Your task to perform on an android device: set default search engine in the chrome app Image 0: 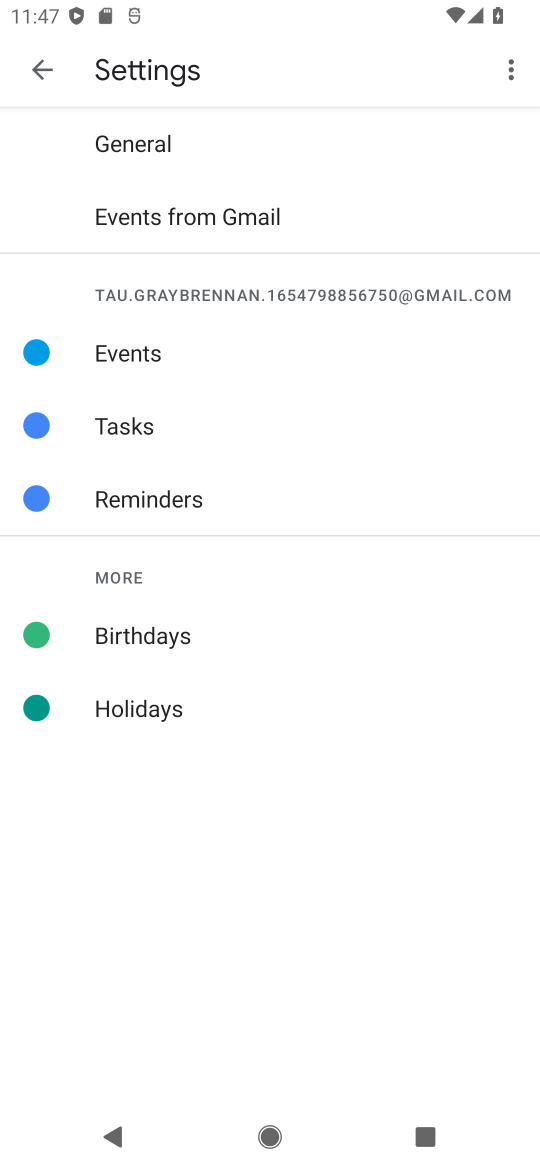
Step 0: press home button
Your task to perform on an android device: set default search engine in the chrome app Image 1: 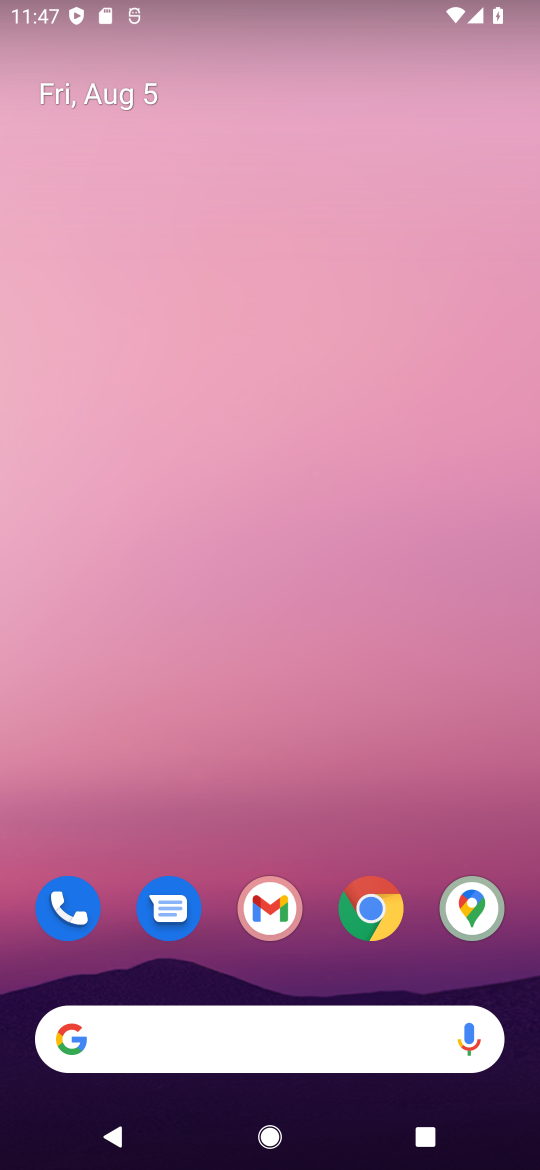
Step 1: drag from (404, 840) to (418, 11)
Your task to perform on an android device: set default search engine in the chrome app Image 2: 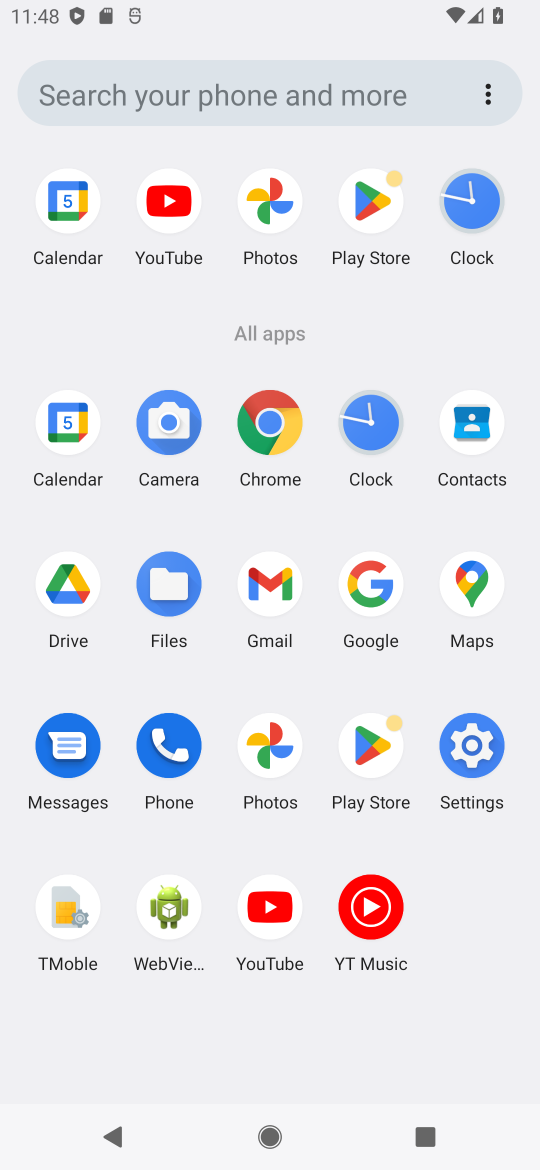
Step 2: click (266, 417)
Your task to perform on an android device: set default search engine in the chrome app Image 3: 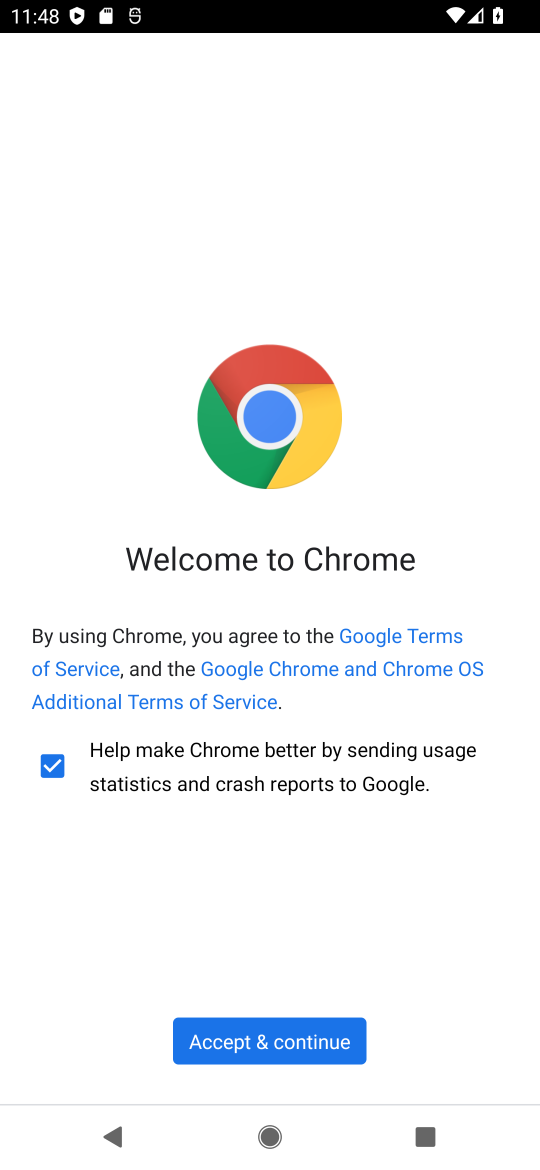
Step 3: click (295, 1055)
Your task to perform on an android device: set default search engine in the chrome app Image 4: 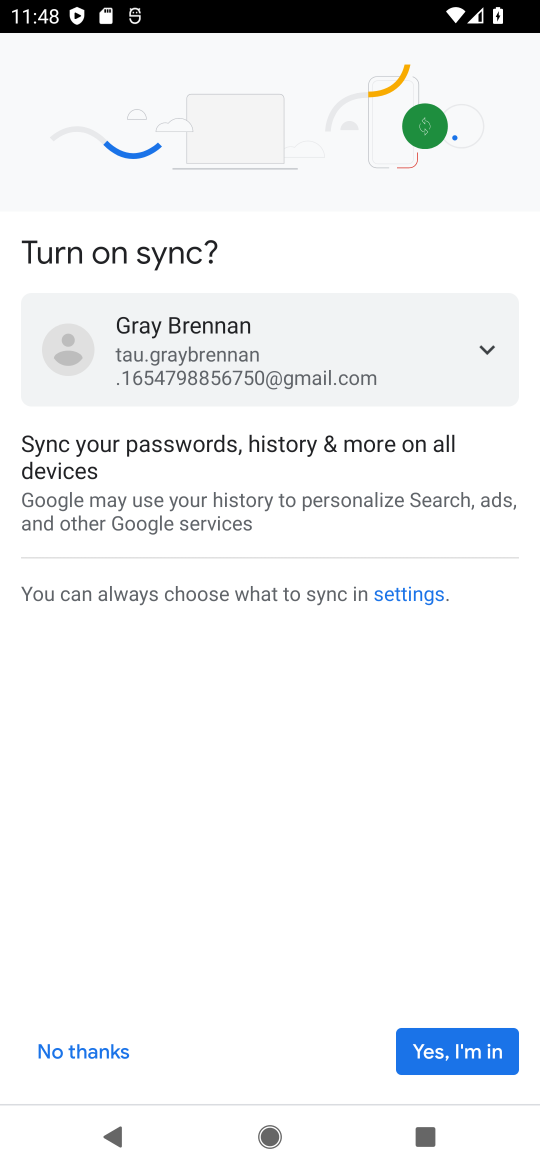
Step 4: click (451, 1041)
Your task to perform on an android device: set default search engine in the chrome app Image 5: 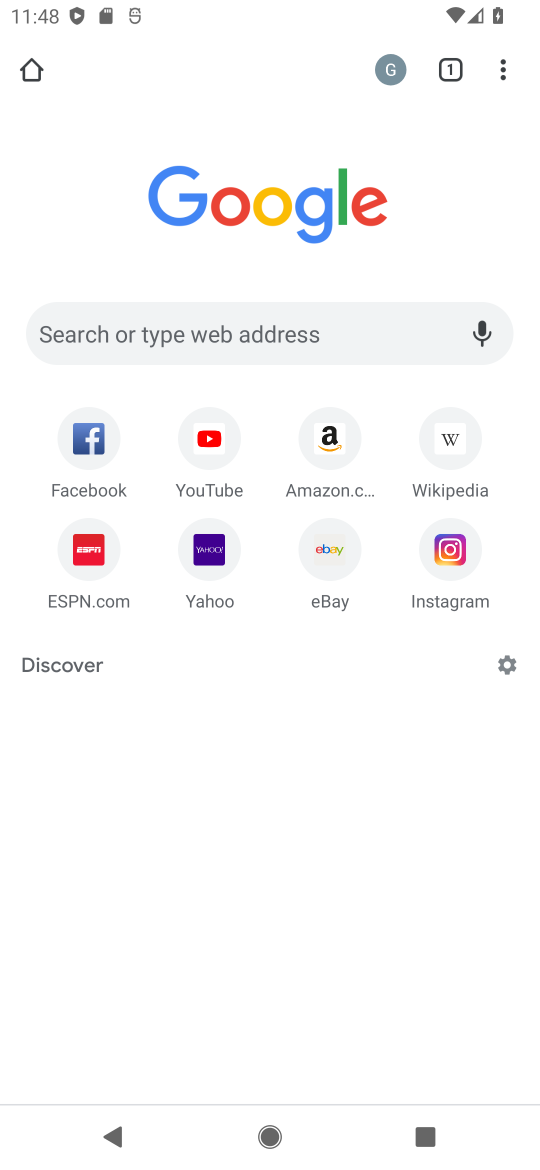
Step 5: drag from (503, 65) to (295, 613)
Your task to perform on an android device: set default search engine in the chrome app Image 6: 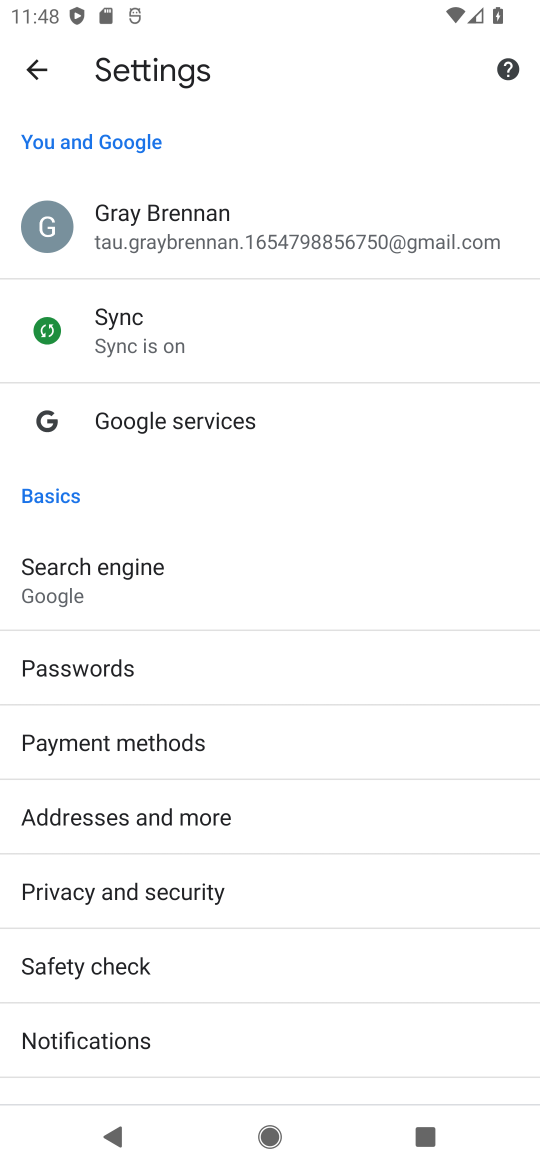
Step 6: click (112, 570)
Your task to perform on an android device: set default search engine in the chrome app Image 7: 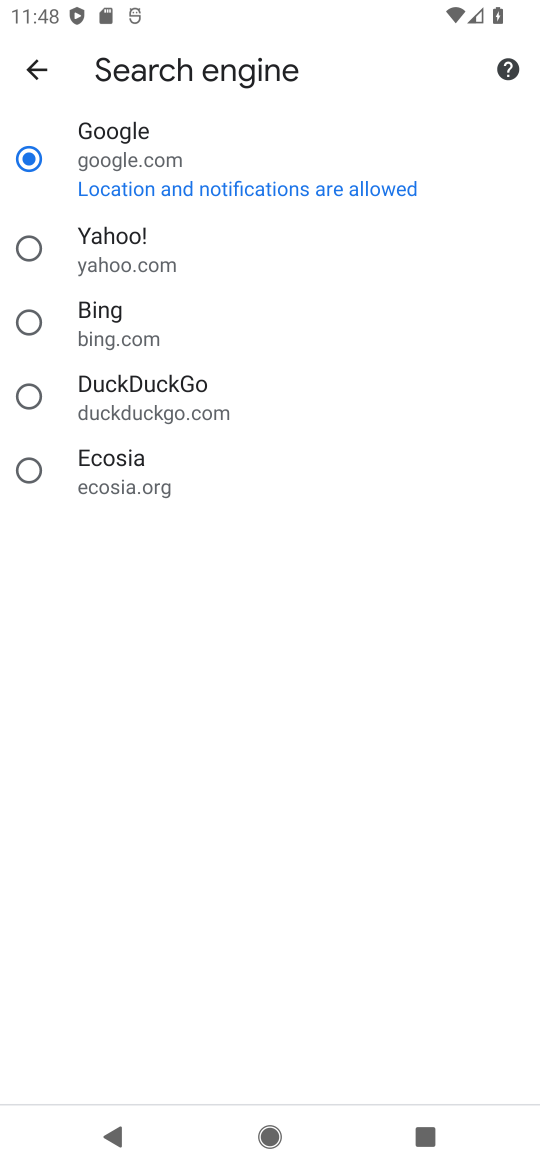
Step 7: task complete